Your task to perform on an android device: Open sound settings Image 0: 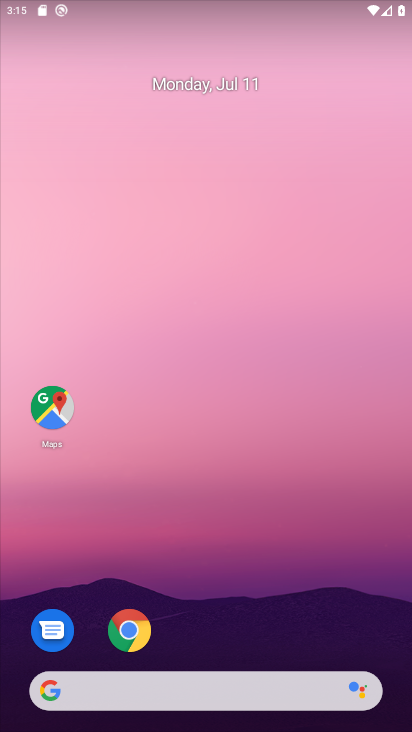
Step 0: click (256, 308)
Your task to perform on an android device: Open sound settings Image 1: 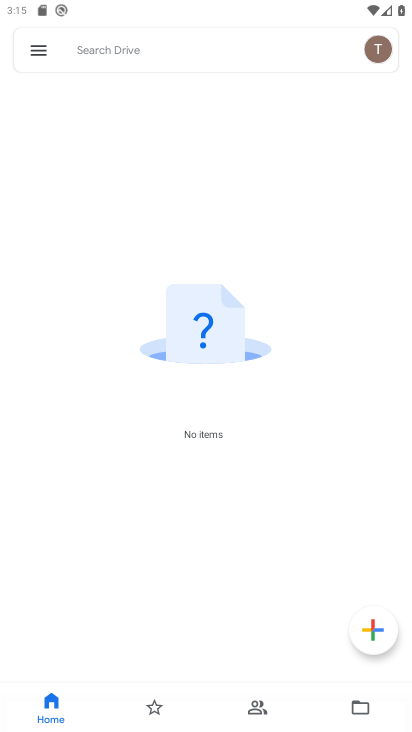
Step 1: press home button
Your task to perform on an android device: Open sound settings Image 2: 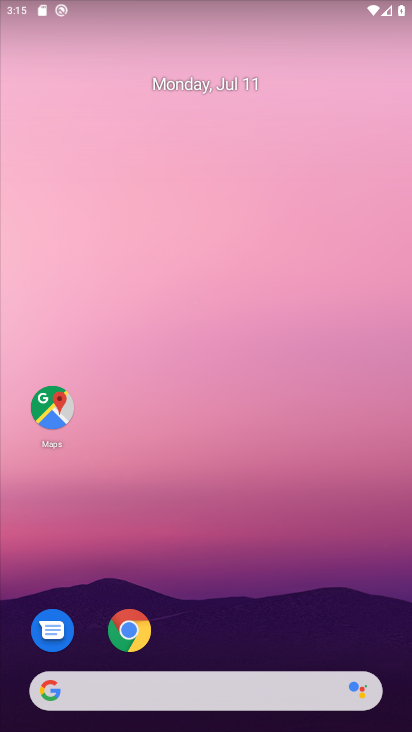
Step 2: drag from (233, 618) to (244, 182)
Your task to perform on an android device: Open sound settings Image 3: 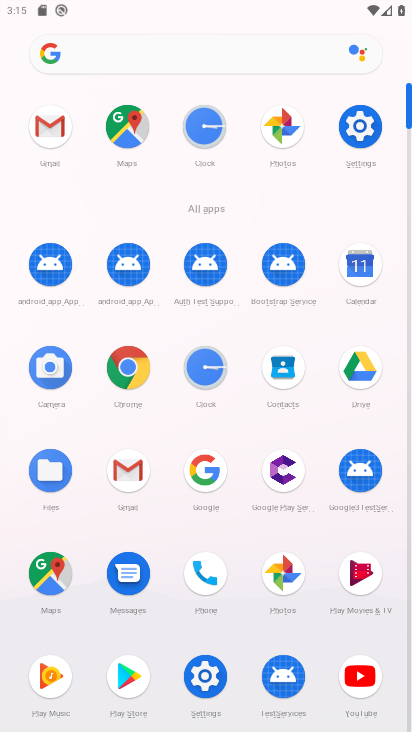
Step 3: click (358, 111)
Your task to perform on an android device: Open sound settings Image 4: 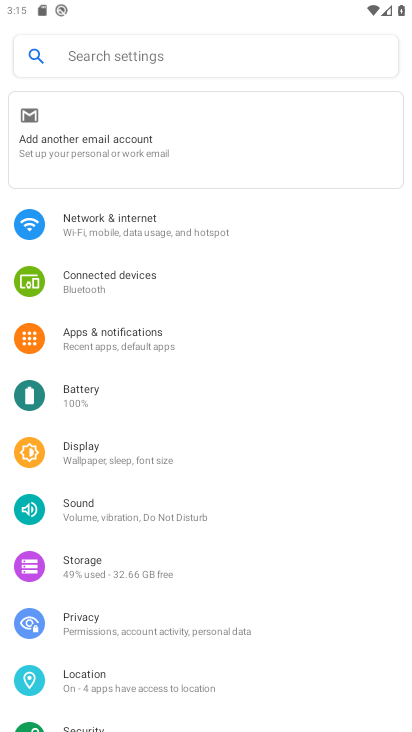
Step 4: click (174, 514)
Your task to perform on an android device: Open sound settings Image 5: 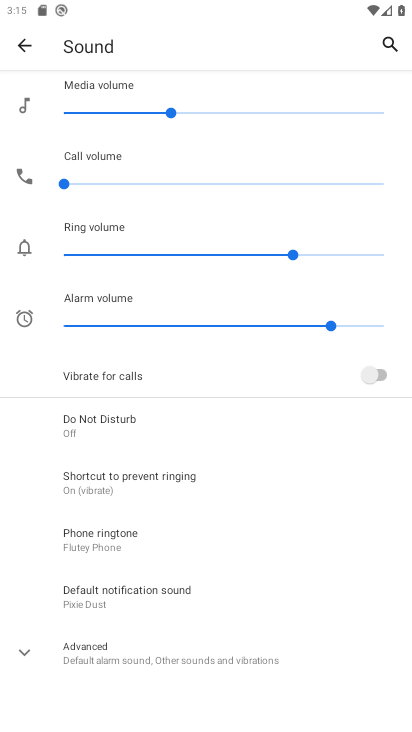
Step 5: task complete